Your task to perform on an android device: turn off wifi Image 0: 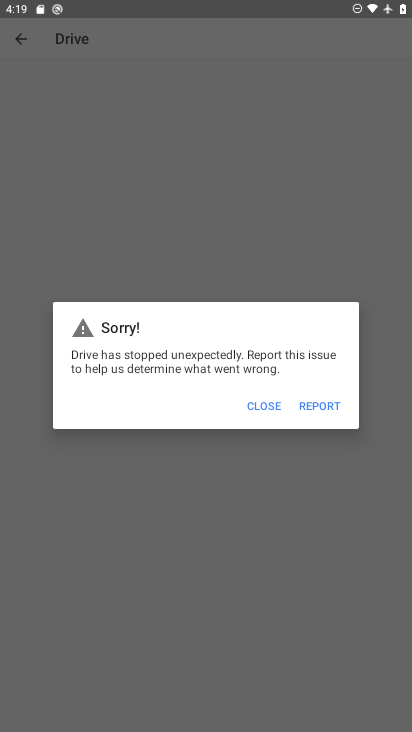
Step 0: press back button
Your task to perform on an android device: turn off wifi Image 1: 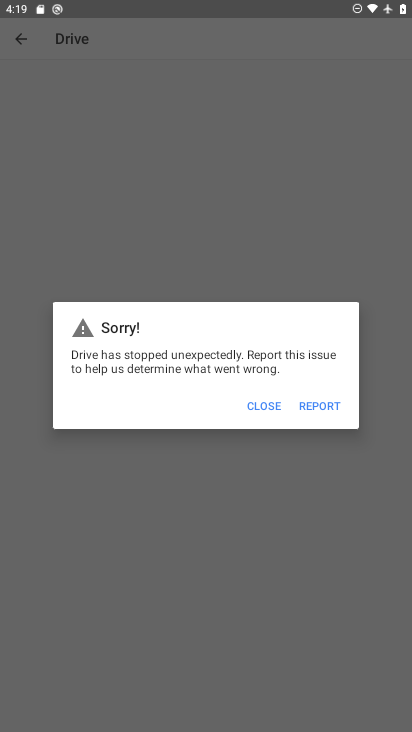
Step 1: press home button
Your task to perform on an android device: turn off wifi Image 2: 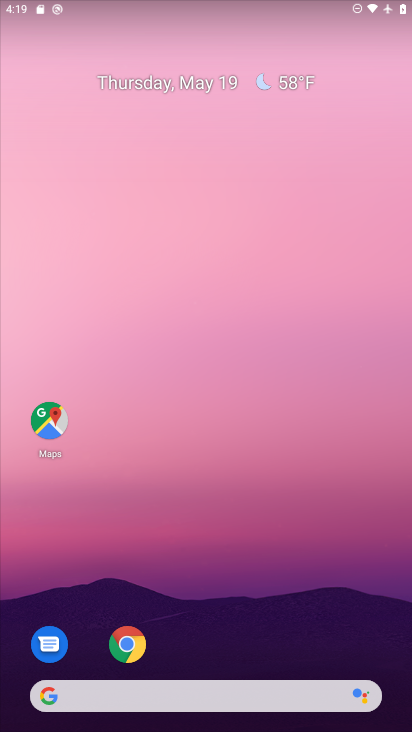
Step 2: drag from (295, 613) to (282, 82)
Your task to perform on an android device: turn off wifi Image 3: 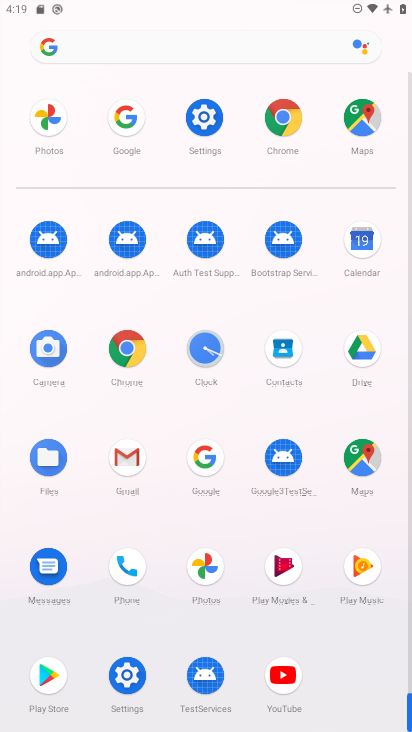
Step 3: drag from (19, 557) to (26, 270)
Your task to perform on an android device: turn off wifi Image 4: 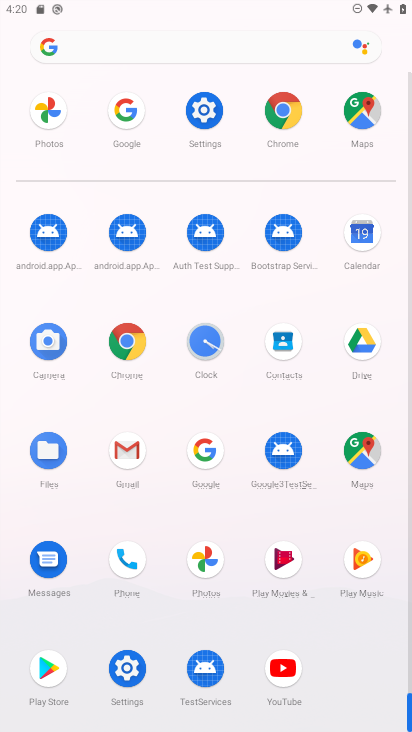
Step 4: click (124, 669)
Your task to perform on an android device: turn off wifi Image 5: 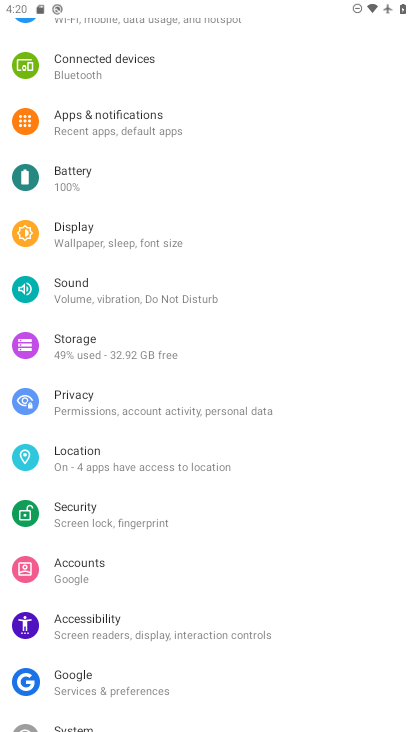
Step 5: drag from (167, 67) to (197, 572)
Your task to perform on an android device: turn off wifi Image 6: 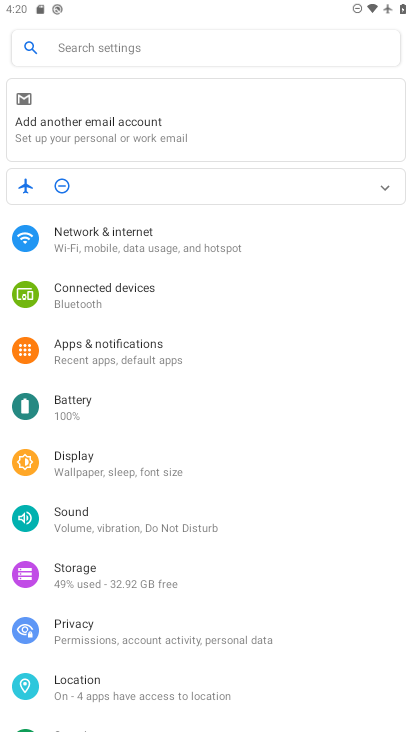
Step 6: click (151, 233)
Your task to perform on an android device: turn off wifi Image 7: 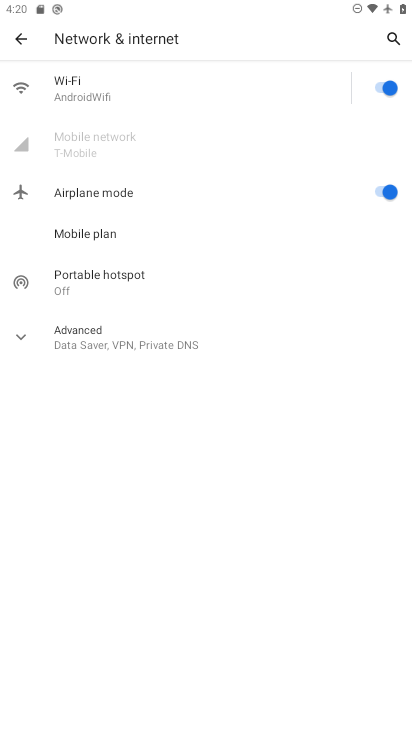
Step 7: click (393, 90)
Your task to perform on an android device: turn off wifi Image 8: 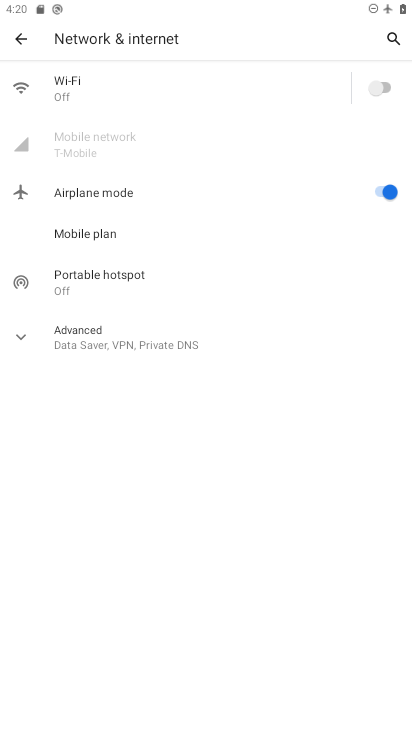
Step 8: task complete